Your task to perform on an android device: toggle improve location accuracy Image 0: 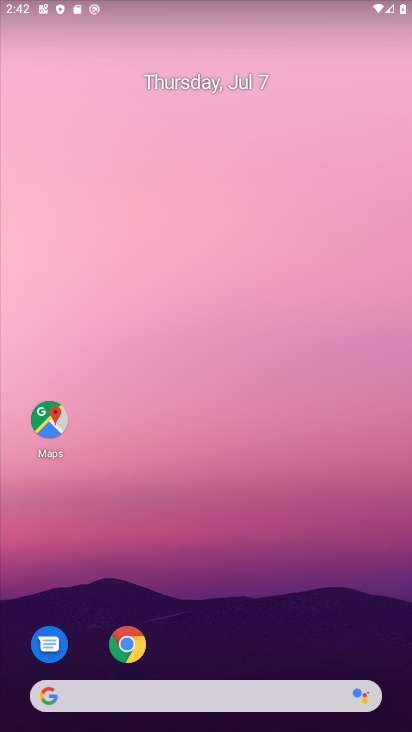
Step 0: press home button
Your task to perform on an android device: toggle improve location accuracy Image 1: 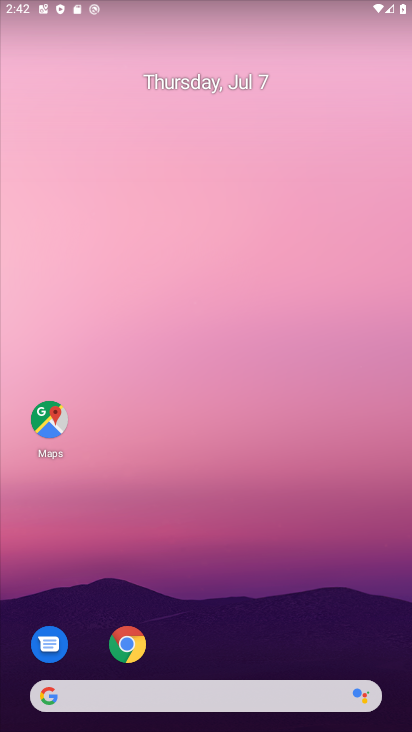
Step 1: drag from (286, 629) to (290, 138)
Your task to perform on an android device: toggle improve location accuracy Image 2: 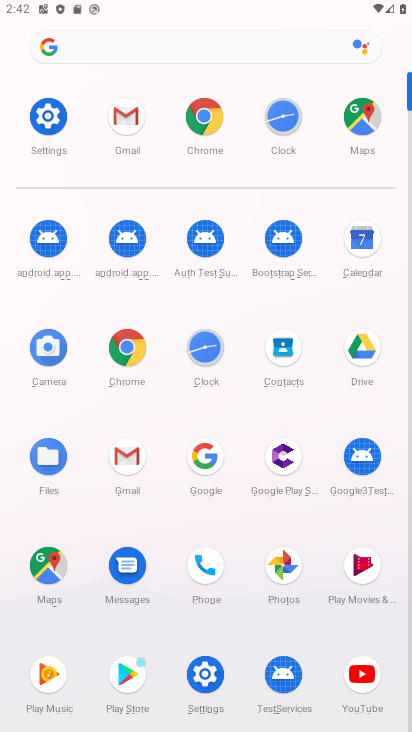
Step 2: click (43, 112)
Your task to perform on an android device: toggle improve location accuracy Image 3: 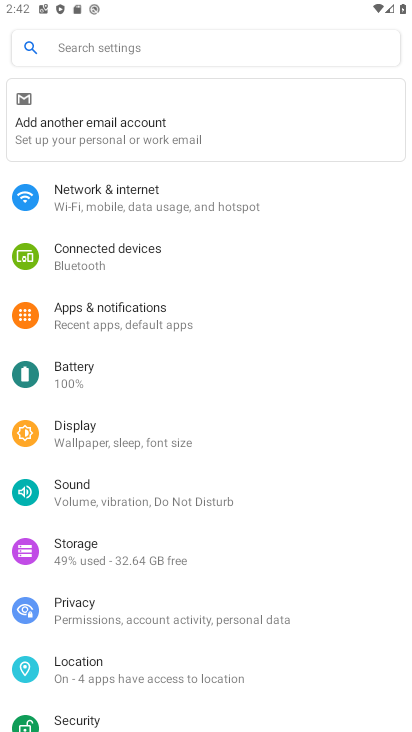
Step 3: click (76, 667)
Your task to perform on an android device: toggle improve location accuracy Image 4: 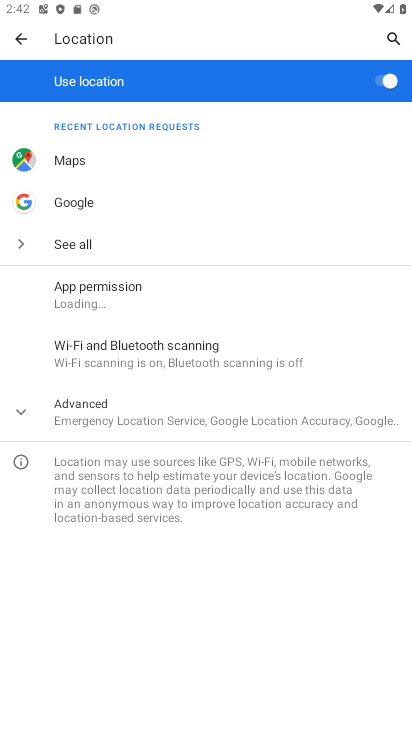
Step 4: click (74, 412)
Your task to perform on an android device: toggle improve location accuracy Image 5: 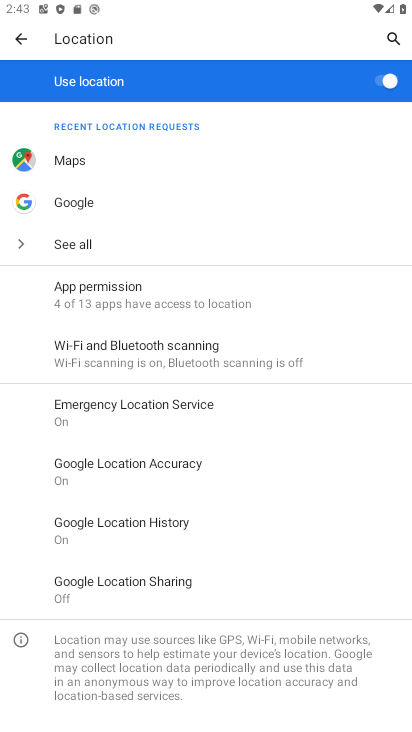
Step 5: click (119, 467)
Your task to perform on an android device: toggle improve location accuracy Image 6: 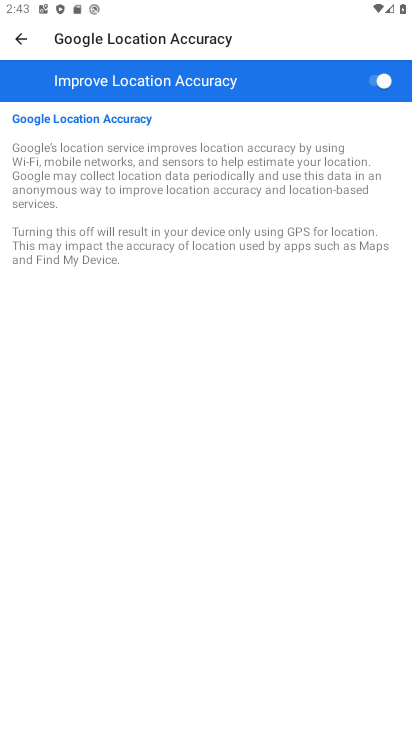
Step 6: click (388, 76)
Your task to perform on an android device: toggle improve location accuracy Image 7: 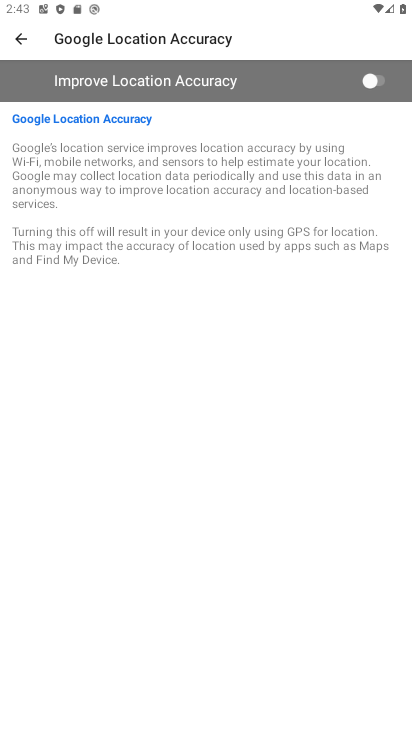
Step 7: task complete